Your task to perform on an android device: Go to Yahoo.com Image 0: 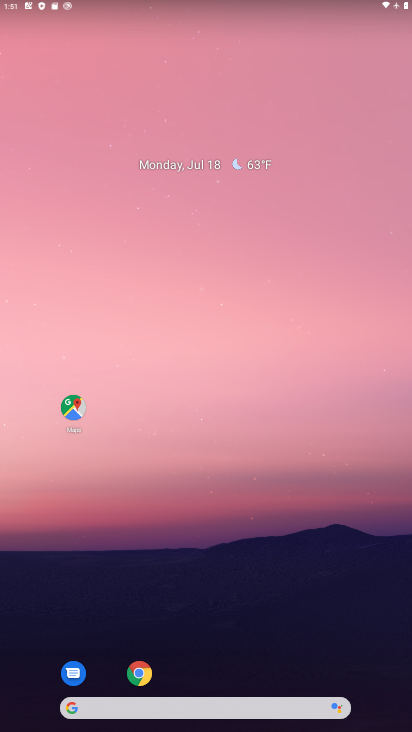
Step 0: drag from (207, 659) to (222, 240)
Your task to perform on an android device: Go to Yahoo.com Image 1: 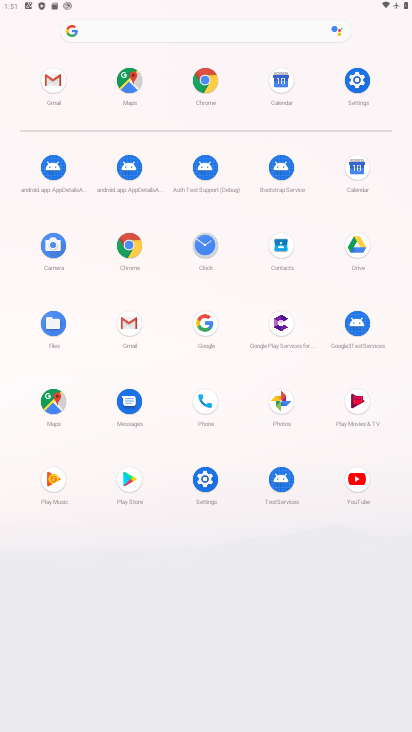
Step 1: click (208, 71)
Your task to perform on an android device: Go to Yahoo.com Image 2: 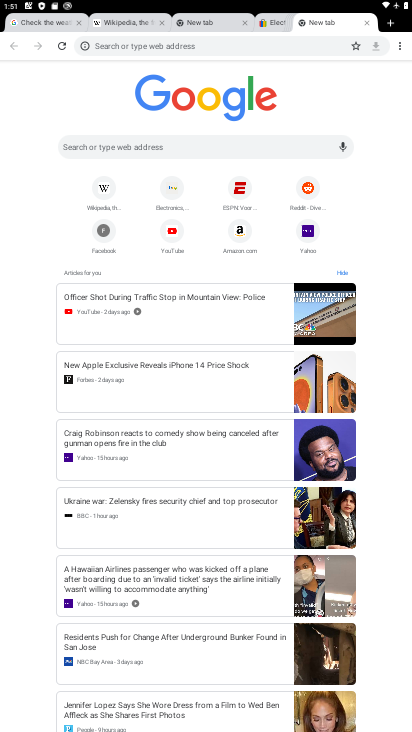
Step 2: click (305, 231)
Your task to perform on an android device: Go to Yahoo.com Image 3: 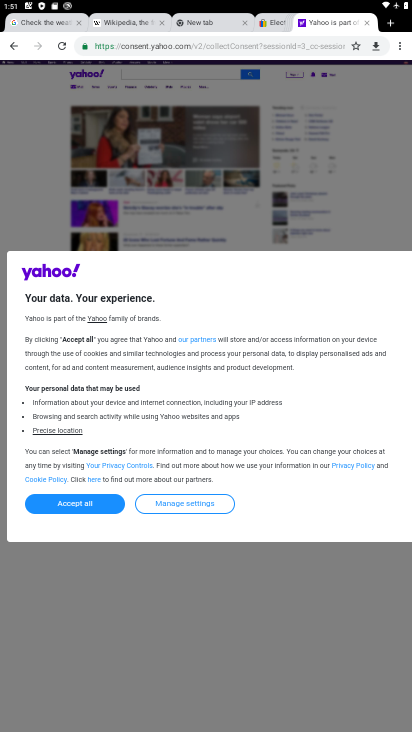
Step 3: task complete